Your task to perform on an android device: open app "eBay: The shopping marketplace" Image 0: 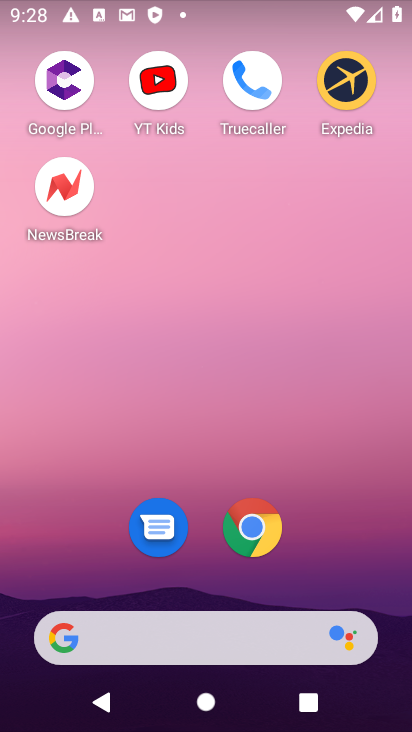
Step 0: drag from (206, 574) to (244, 57)
Your task to perform on an android device: open app "eBay: The shopping marketplace" Image 1: 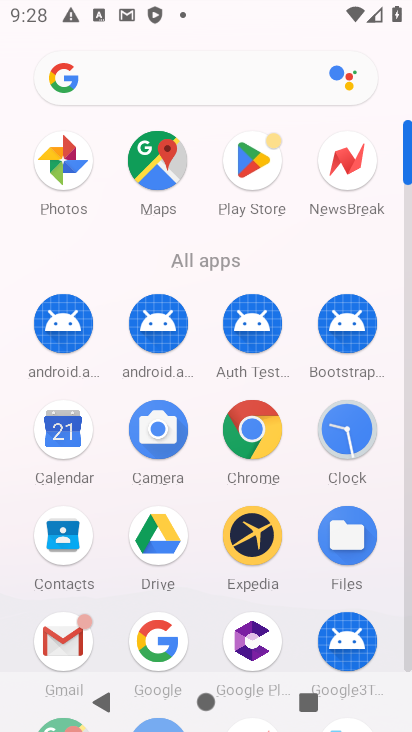
Step 1: click (262, 169)
Your task to perform on an android device: open app "eBay: The shopping marketplace" Image 2: 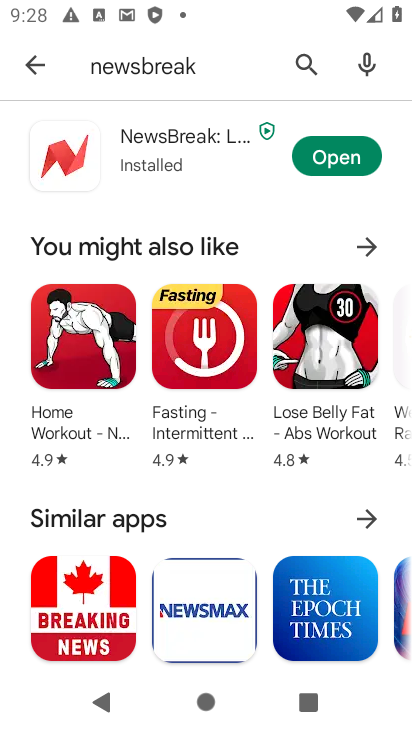
Step 2: click (185, 57)
Your task to perform on an android device: open app "eBay: The shopping marketplace" Image 3: 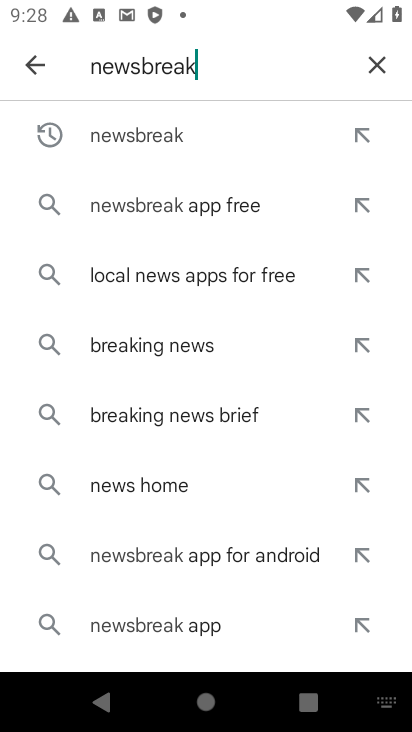
Step 3: click (372, 61)
Your task to perform on an android device: open app "eBay: The shopping marketplace" Image 4: 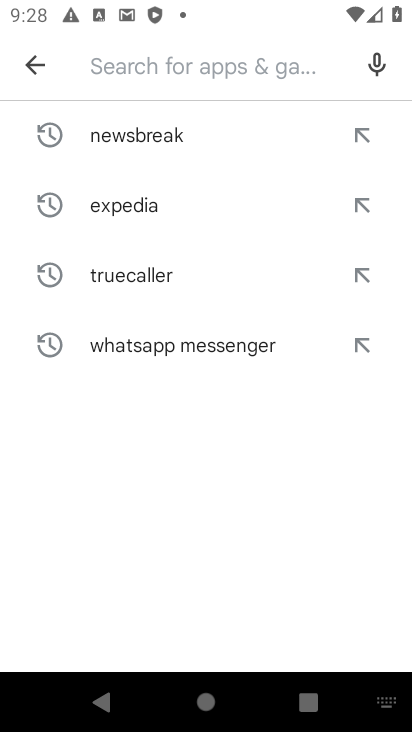
Step 4: type "expedia"
Your task to perform on an android device: open app "eBay: The shopping marketplace" Image 5: 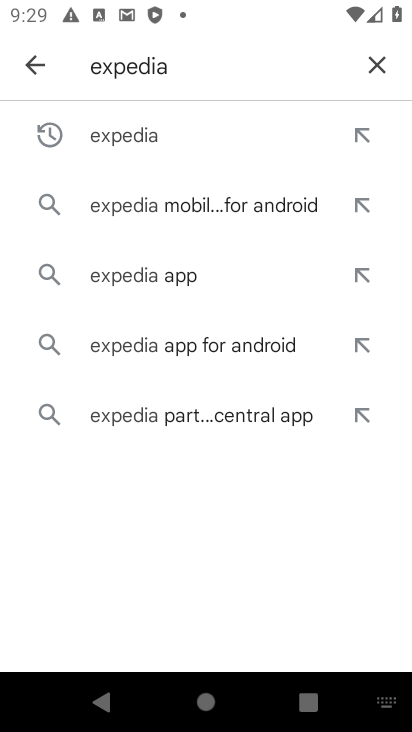
Step 5: click (378, 64)
Your task to perform on an android device: open app "eBay: The shopping marketplace" Image 6: 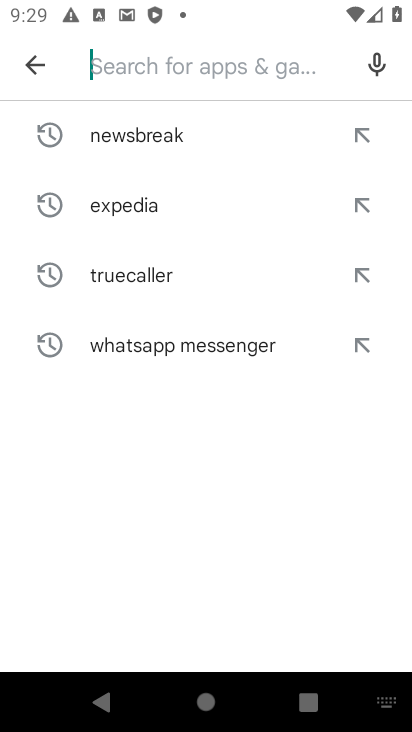
Step 6: type "eBay"
Your task to perform on an android device: open app "eBay: The shopping marketplace" Image 7: 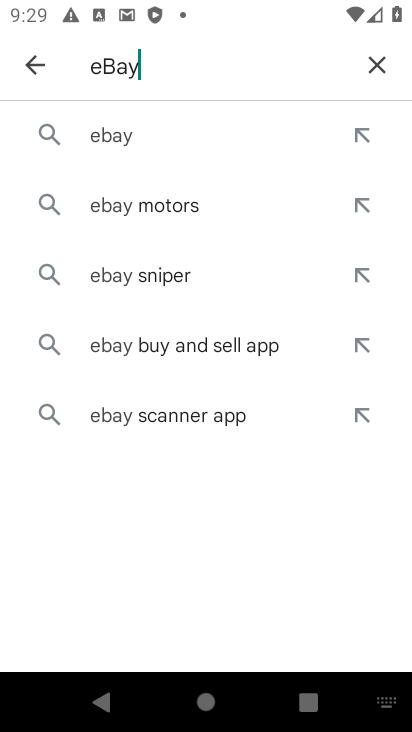
Step 7: click (142, 139)
Your task to perform on an android device: open app "eBay: The shopping marketplace" Image 8: 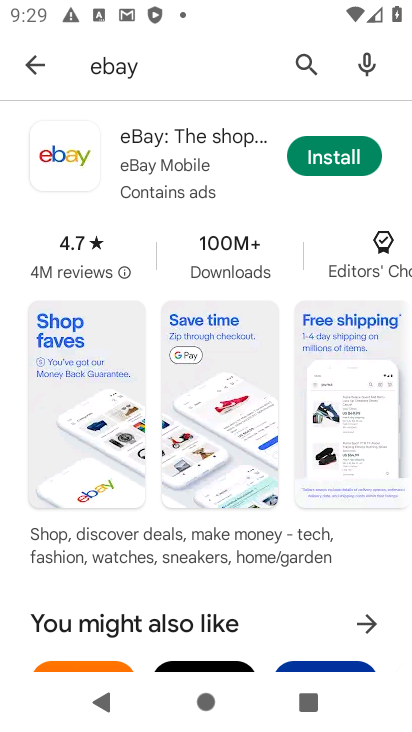
Step 8: task complete